Your task to perform on an android device: Go to display settings Image 0: 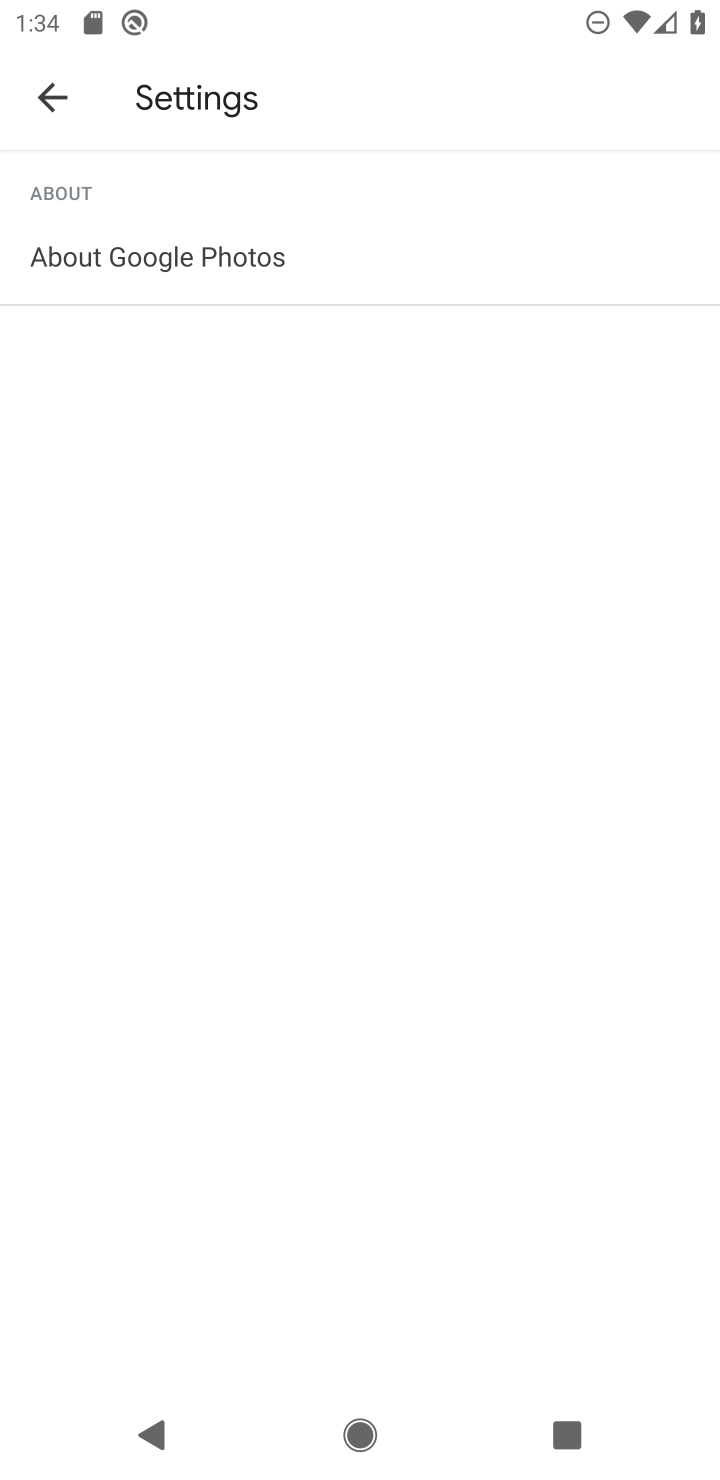
Step 0: press back button
Your task to perform on an android device: Go to display settings Image 1: 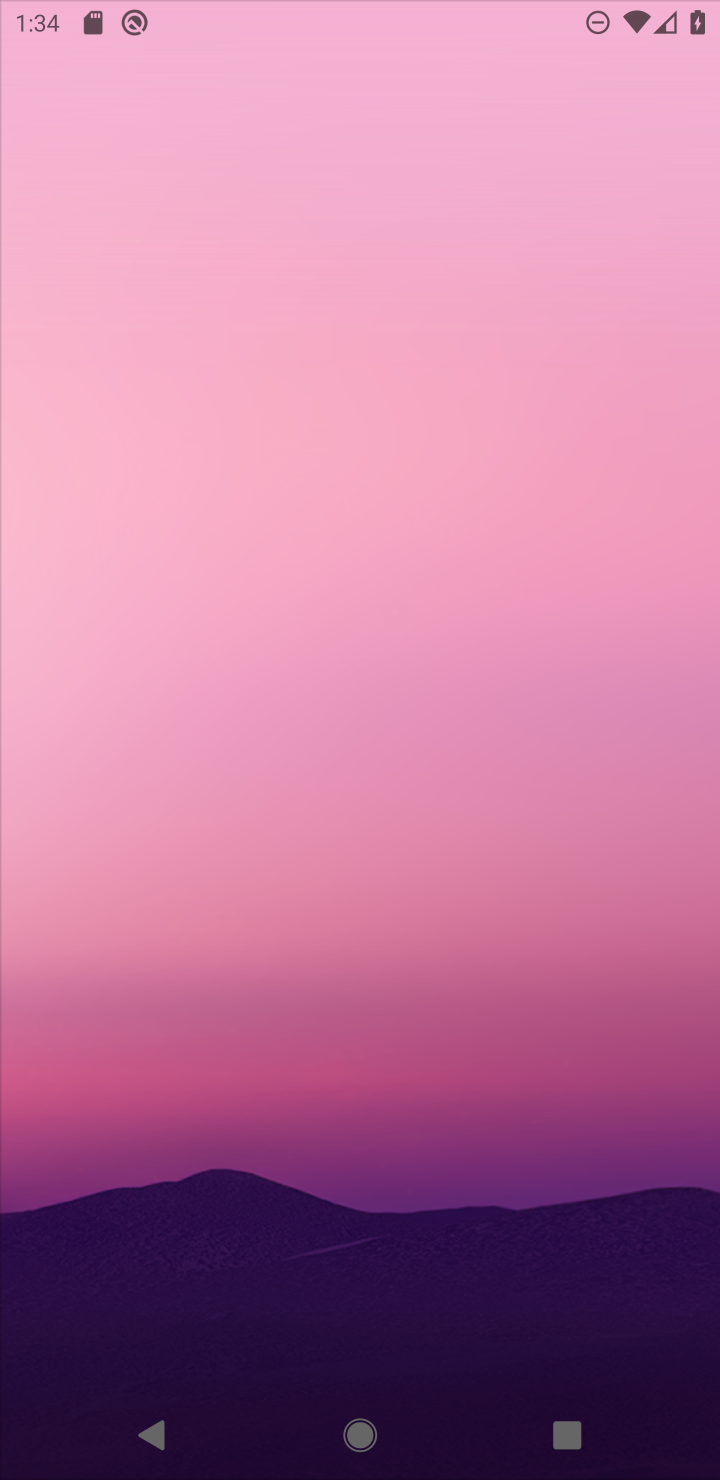
Step 1: press home button
Your task to perform on an android device: Go to display settings Image 2: 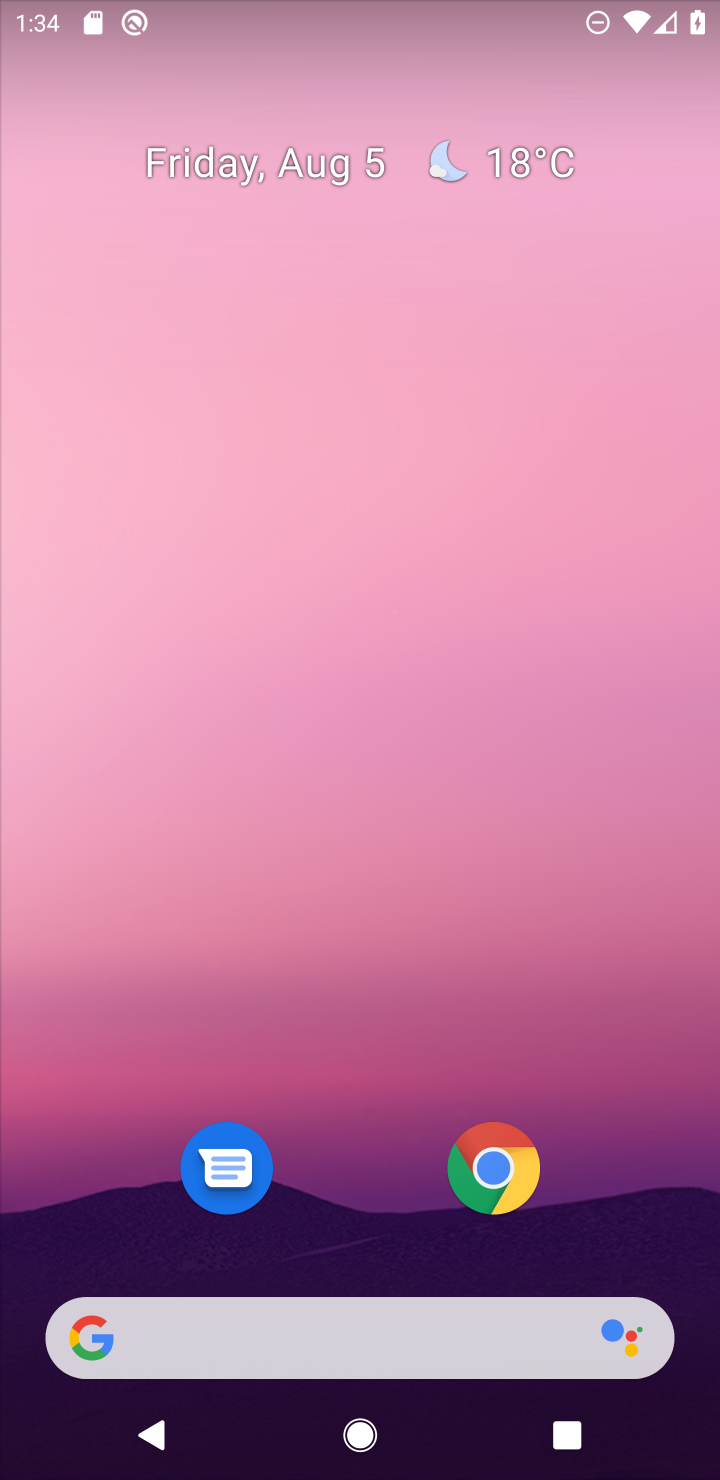
Step 2: drag from (397, 1034) to (549, 20)
Your task to perform on an android device: Go to display settings Image 3: 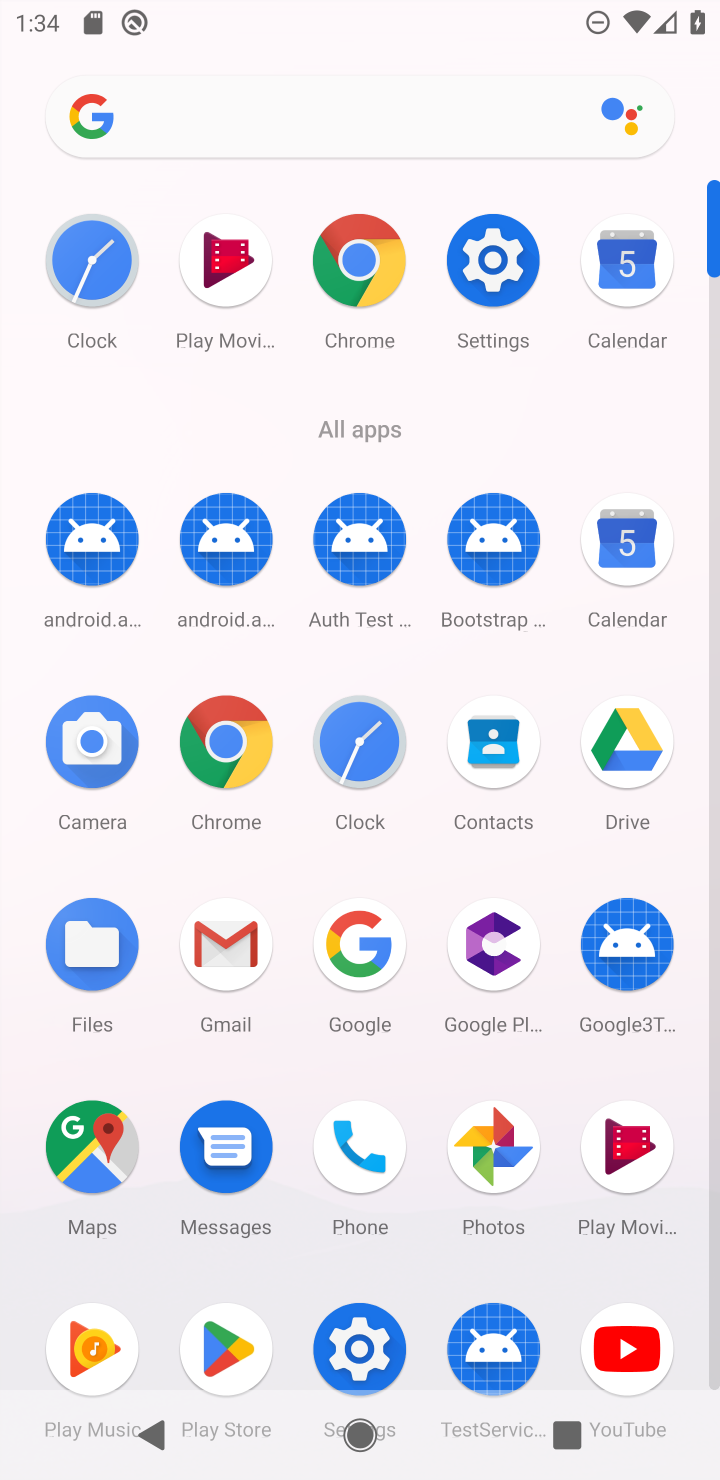
Step 3: click (496, 284)
Your task to perform on an android device: Go to display settings Image 4: 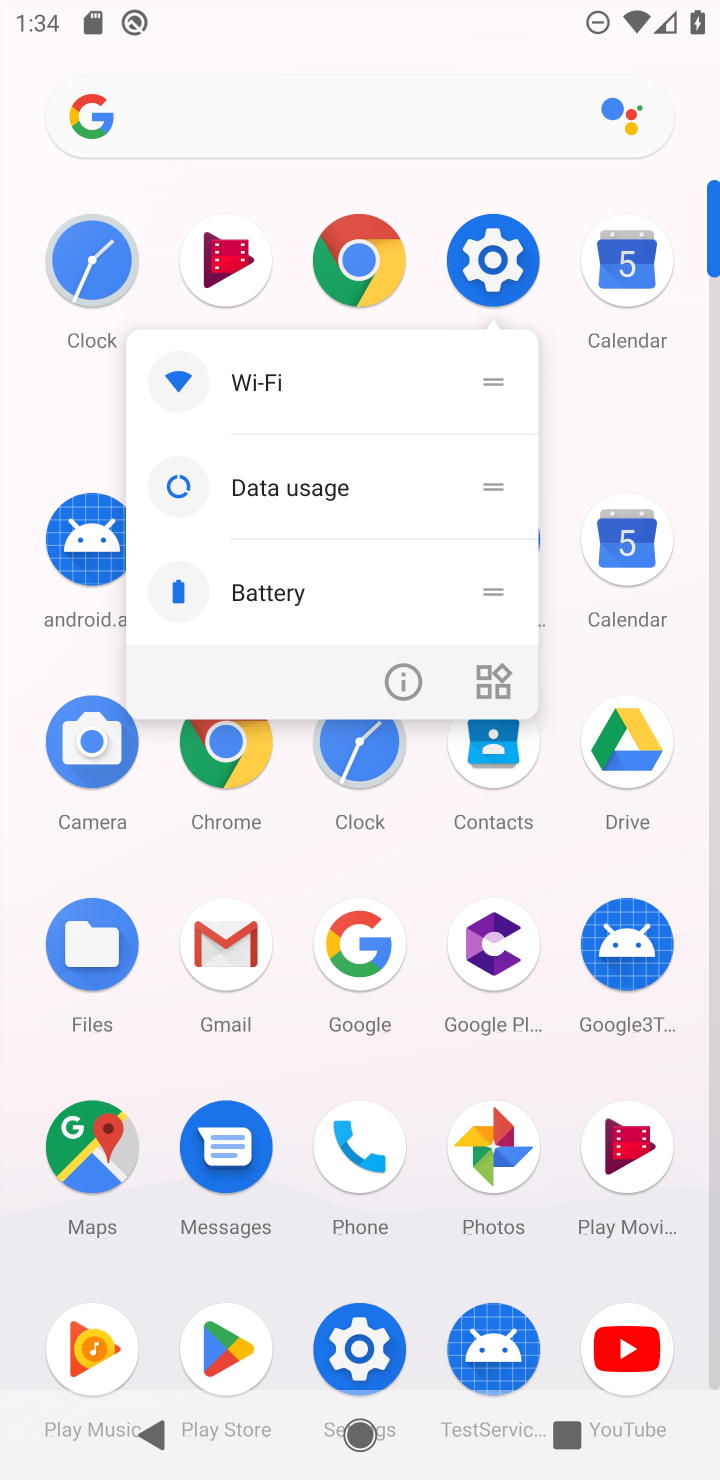
Step 4: click (499, 282)
Your task to perform on an android device: Go to display settings Image 5: 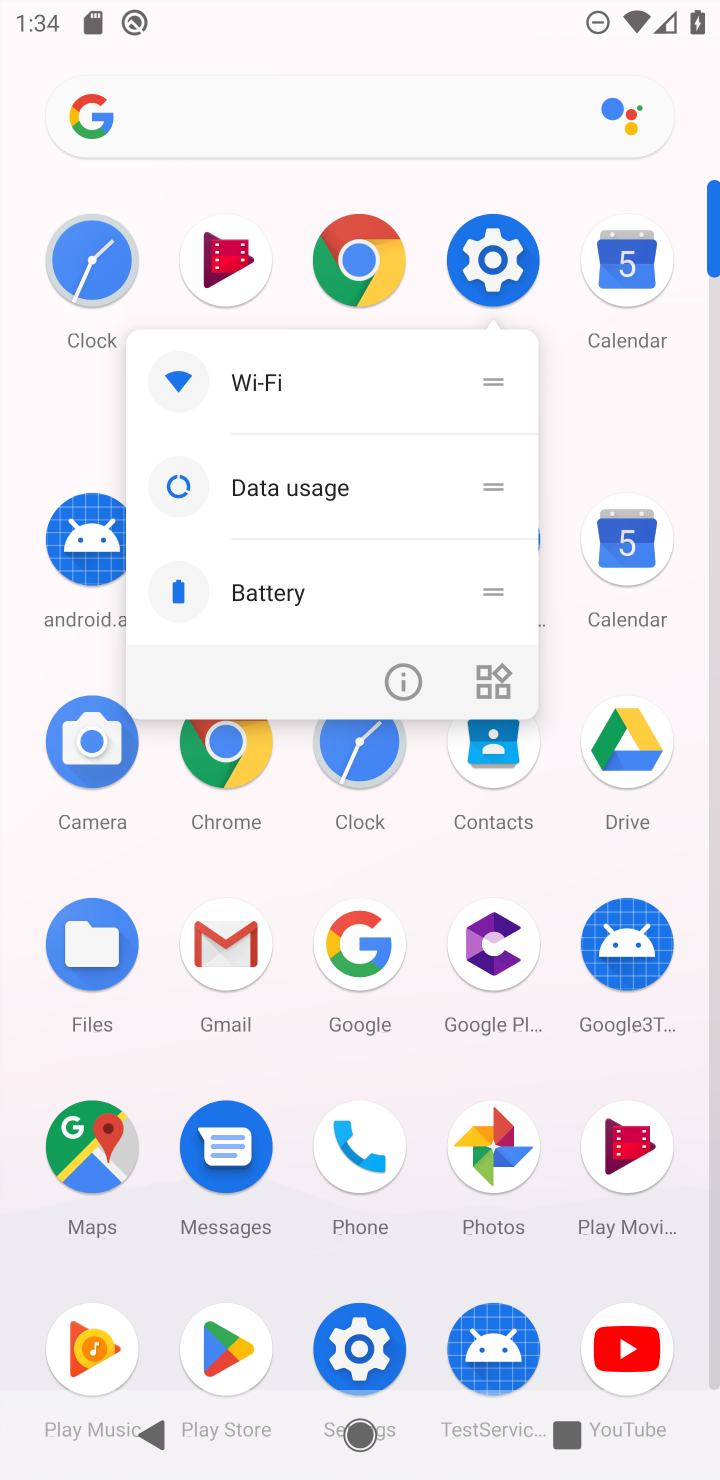
Step 5: click (493, 280)
Your task to perform on an android device: Go to display settings Image 6: 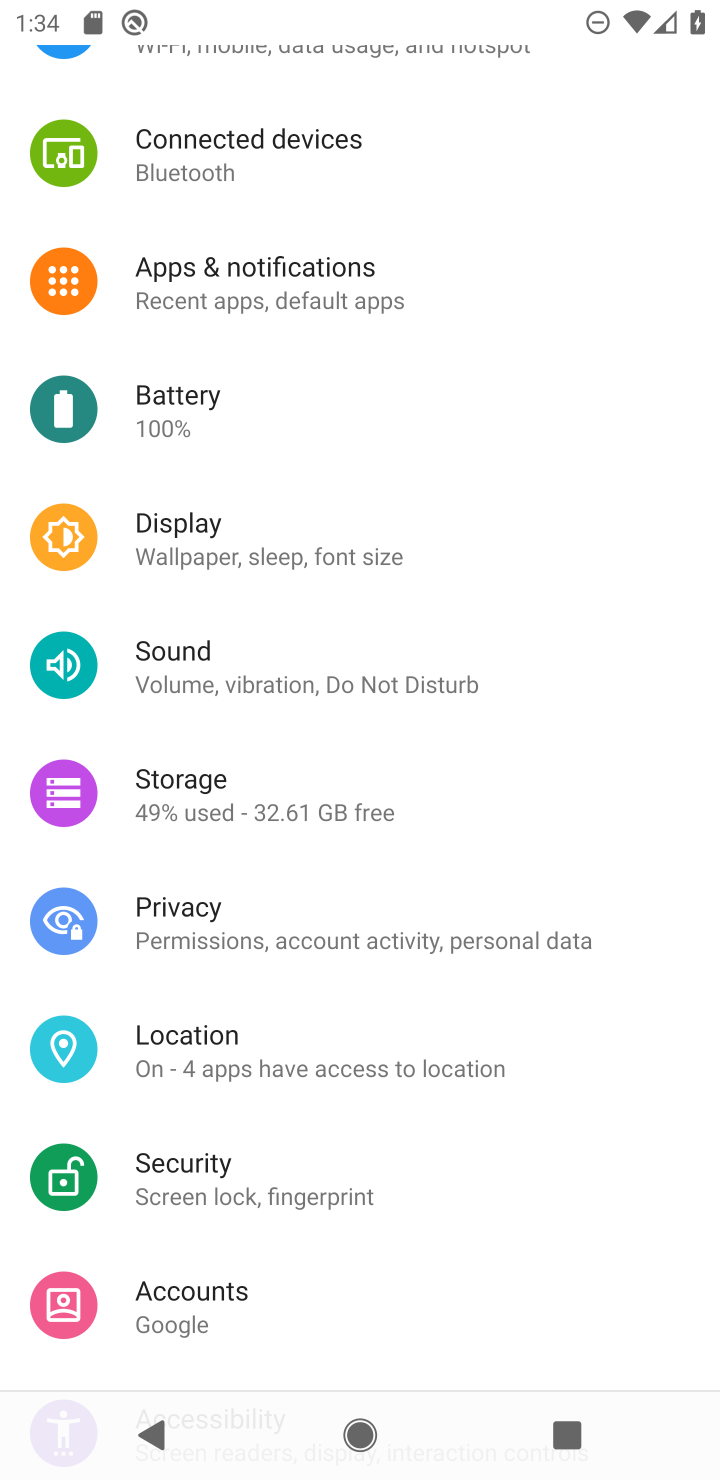
Step 6: click (192, 541)
Your task to perform on an android device: Go to display settings Image 7: 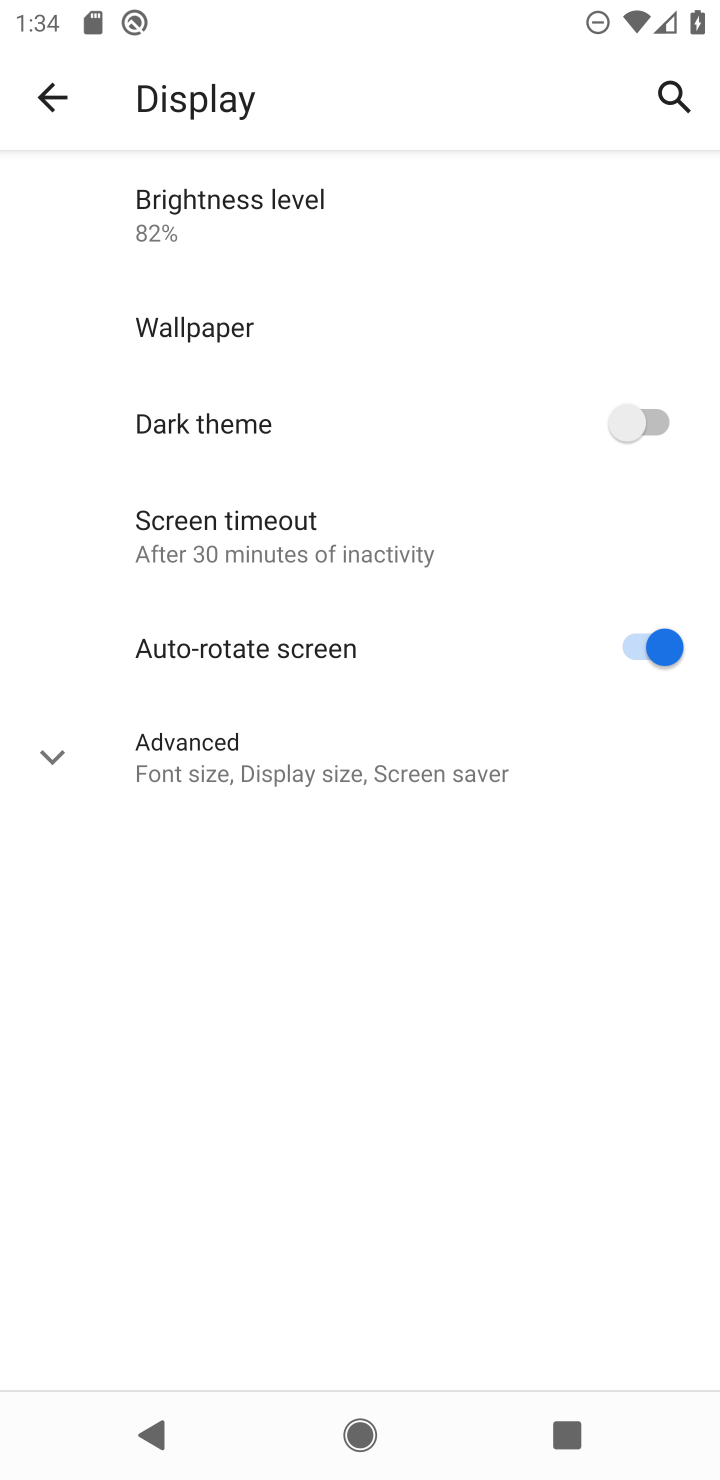
Step 7: task complete